Your task to perform on an android device: Open Google Chrome and click the shortcut for Amazon.com Image 0: 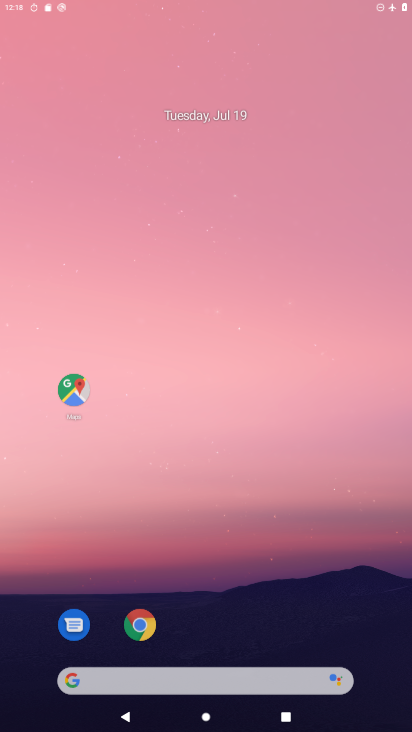
Step 0: click (275, 60)
Your task to perform on an android device: Open Google Chrome and click the shortcut for Amazon.com Image 1: 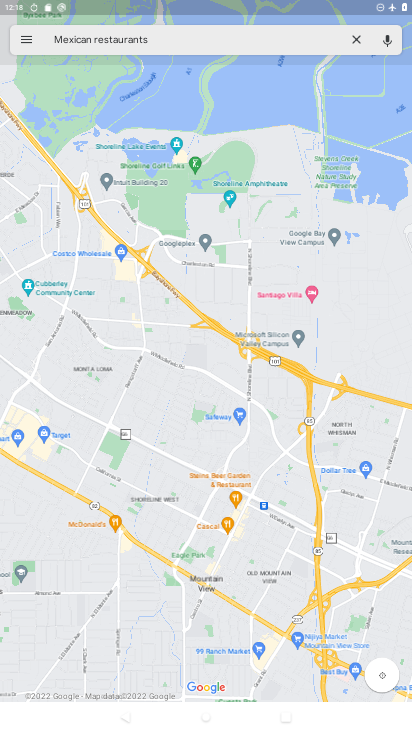
Step 1: press home button
Your task to perform on an android device: Open Google Chrome and click the shortcut for Amazon.com Image 2: 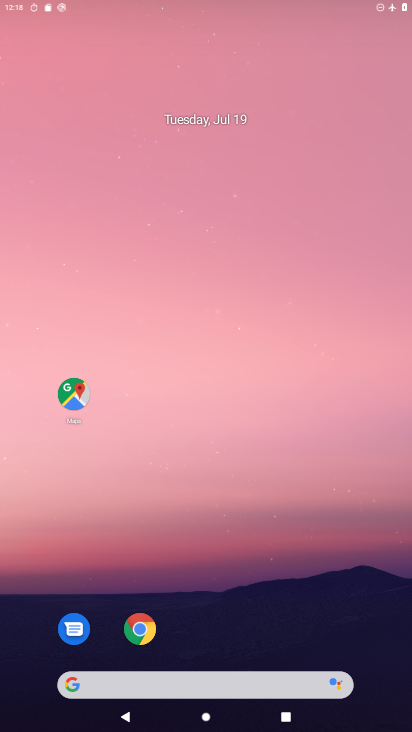
Step 2: drag from (325, 632) to (375, 111)
Your task to perform on an android device: Open Google Chrome and click the shortcut for Amazon.com Image 3: 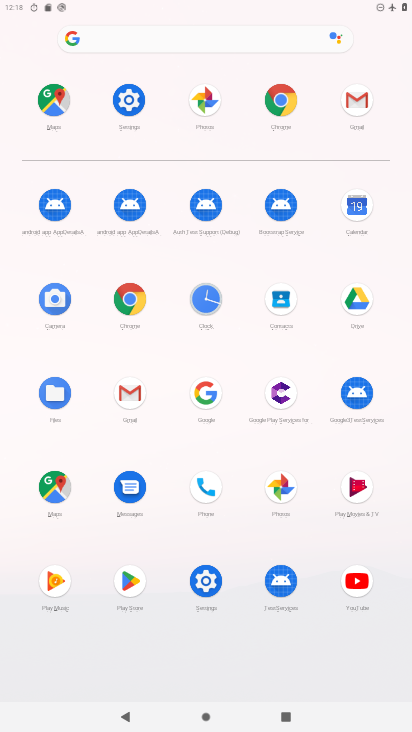
Step 3: click (279, 102)
Your task to perform on an android device: Open Google Chrome and click the shortcut for Amazon.com Image 4: 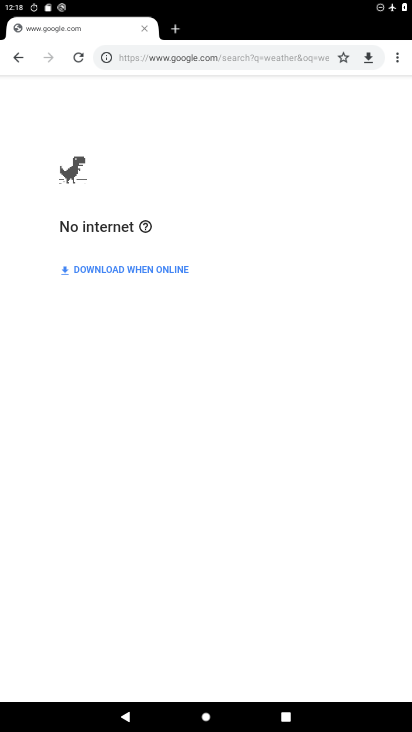
Step 4: click (183, 28)
Your task to perform on an android device: Open Google Chrome and click the shortcut for Amazon.com Image 5: 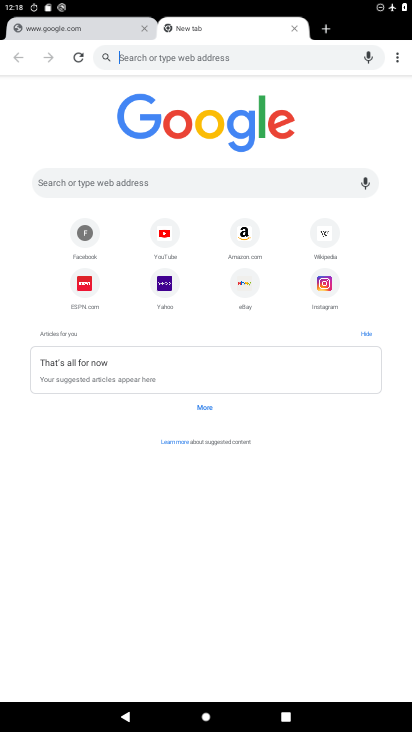
Step 5: click (246, 230)
Your task to perform on an android device: Open Google Chrome and click the shortcut for Amazon.com Image 6: 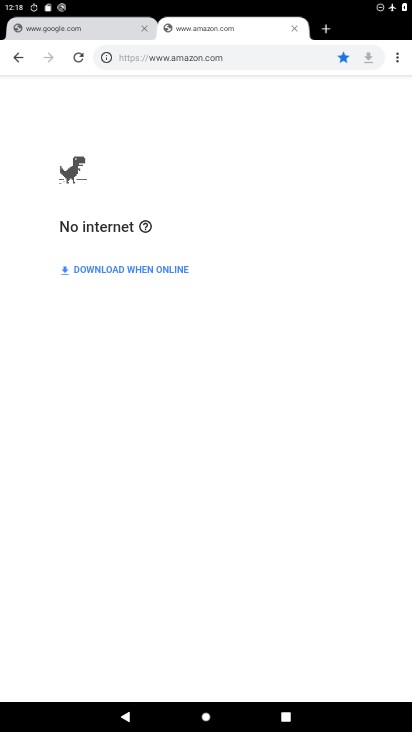
Step 6: task complete